Your task to perform on an android device: turn on improve location accuracy Image 0: 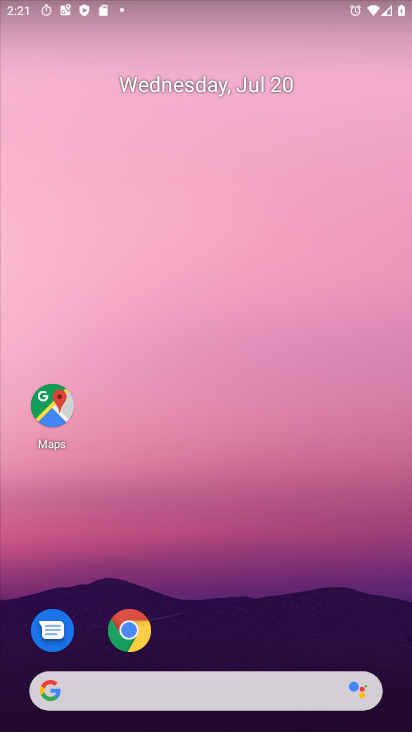
Step 0: drag from (165, 689) to (277, 181)
Your task to perform on an android device: turn on improve location accuracy Image 1: 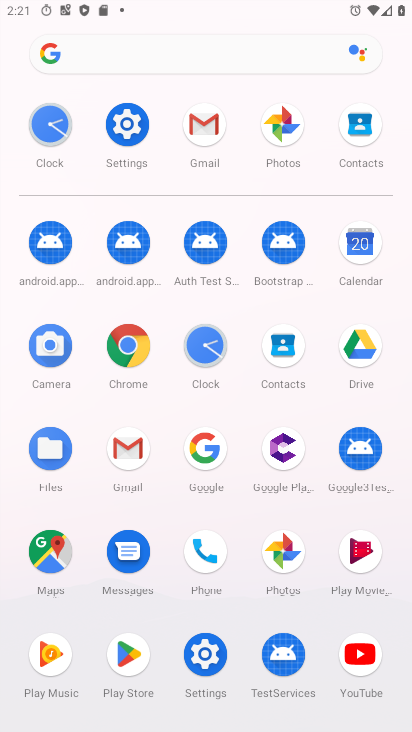
Step 1: click (130, 128)
Your task to perform on an android device: turn on improve location accuracy Image 2: 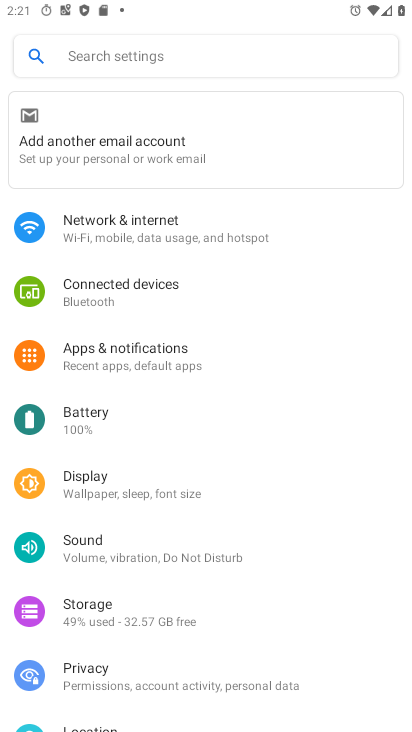
Step 2: drag from (291, 578) to (307, 290)
Your task to perform on an android device: turn on improve location accuracy Image 3: 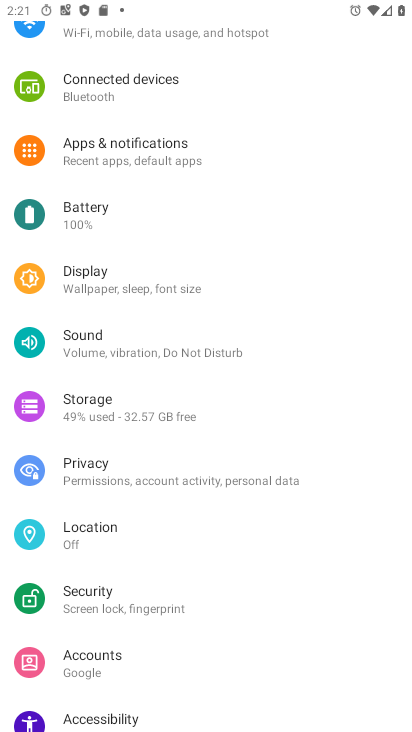
Step 3: click (100, 541)
Your task to perform on an android device: turn on improve location accuracy Image 4: 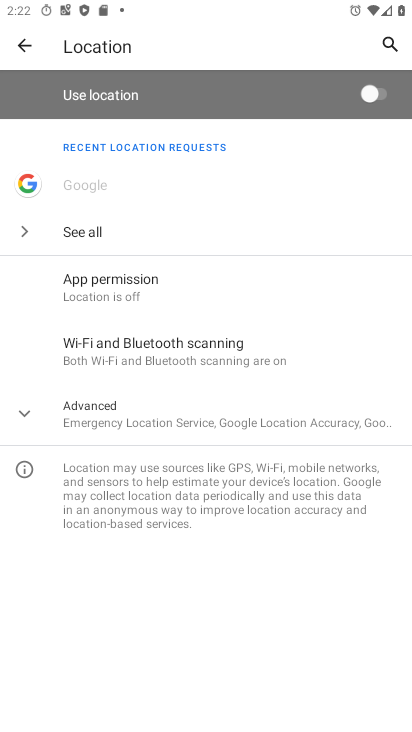
Step 4: click (129, 419)
Your task to perform on an android device: turn on improve location accuracy Image 5: 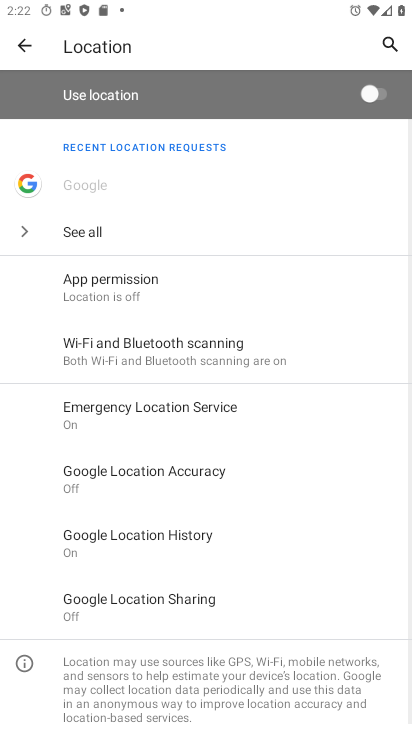
Step 5: click (167, 473)
Your task to perform on an android device: turn on improve location accuracy Image 6: 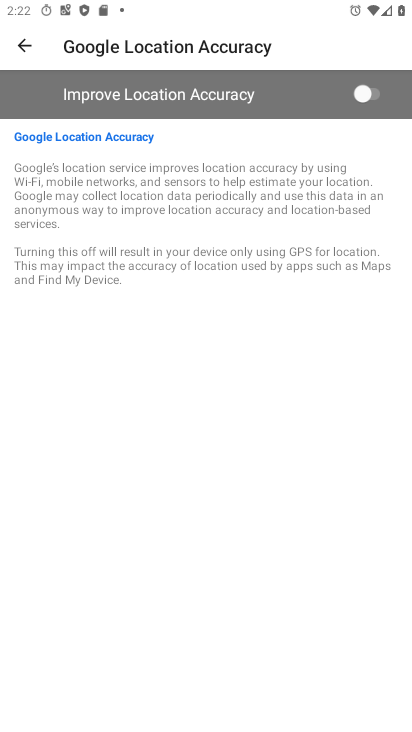
Step 6: click (372, 91)
Your task to perform on an android device: turn on improve location accuracy Image 7: 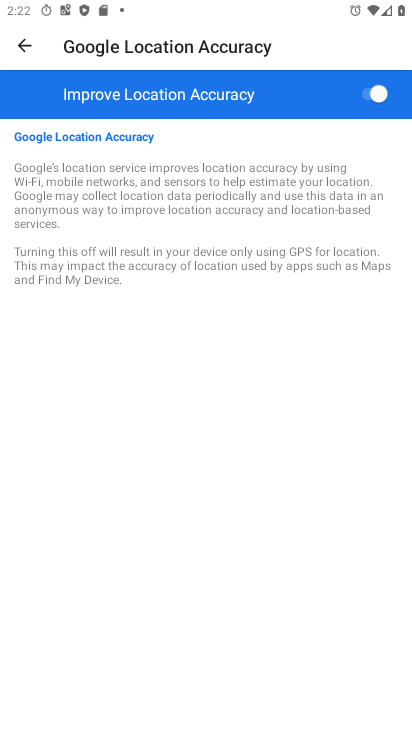
Step 7: task complete